Your task to perform on an android device: delete a single message in the gmail app Image 0: 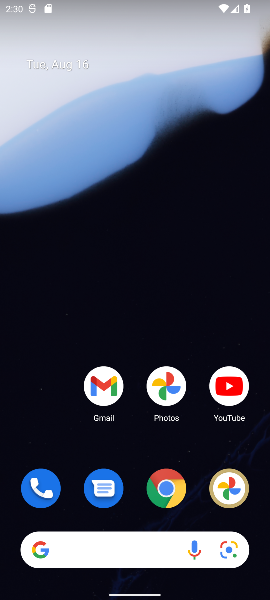
Step 0: drag from (79, 318) to (93, 32)
Your task to perform on an android device: delete a single message in the gmail app Image 1: 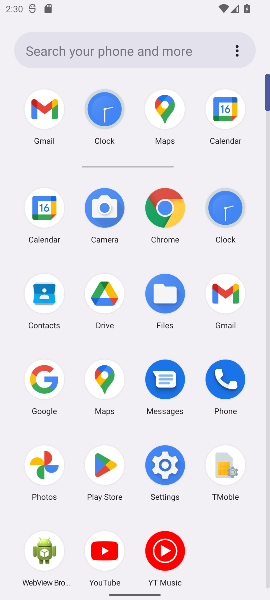
Step 1: task complete